Your task to perform on an android device: Go to wifi settings Image 0: 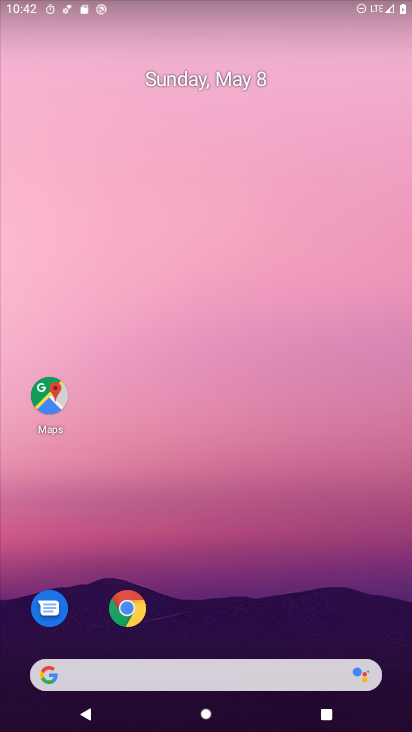
Step 0: drag from (201, 600) to (220, 84)
Your task to perform on an android device: Go to wifi settings Image 1: 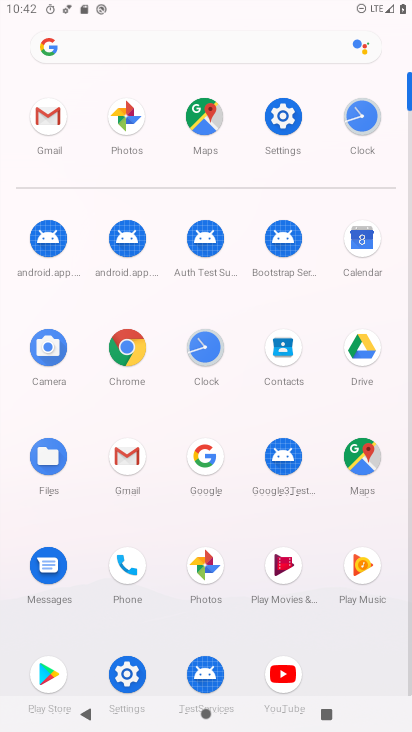
Step 1: click (279, 113)
Your task to perform on an android device: Go to wifi settings Image 2: 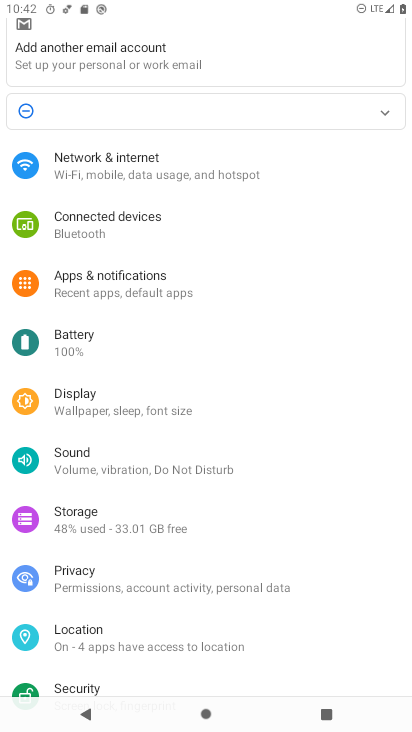
Step 2: click (201, 177)
Your task to perform on an android device: Go to wifi settings Image 3: 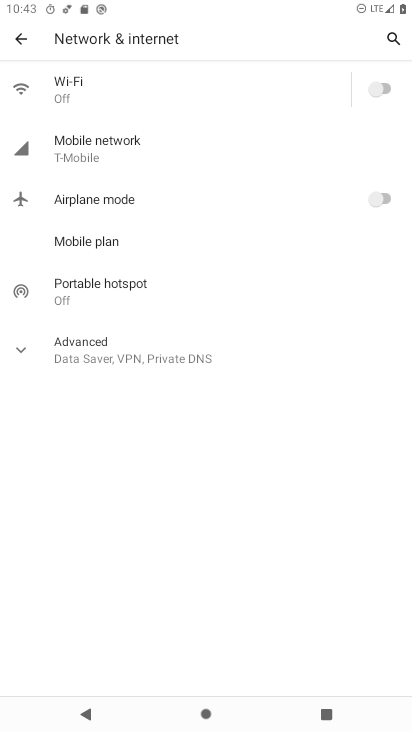
Step 3: click (114, 87)
Your task to perform on an android device: Go to wifi settings Image 4: 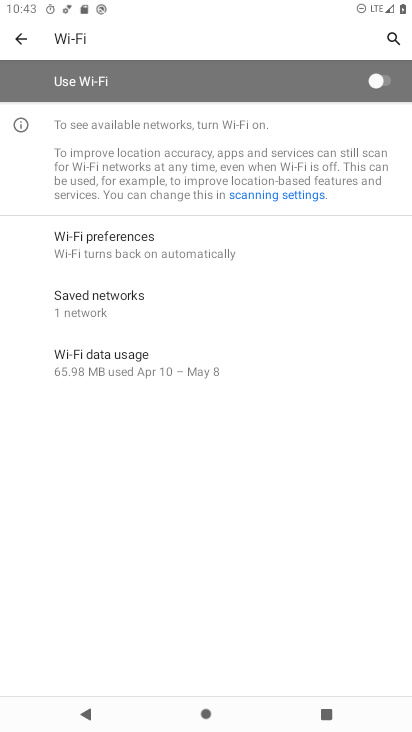
Step 4: task complete